Your task to perform on an android device: Open accessibility settings Image 0: 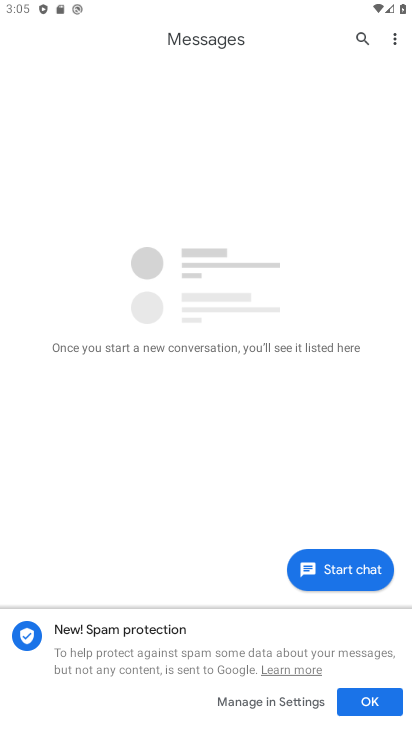
Step 0: press home button
Your task to perform on an android device: Open accessibility settings Image 1: 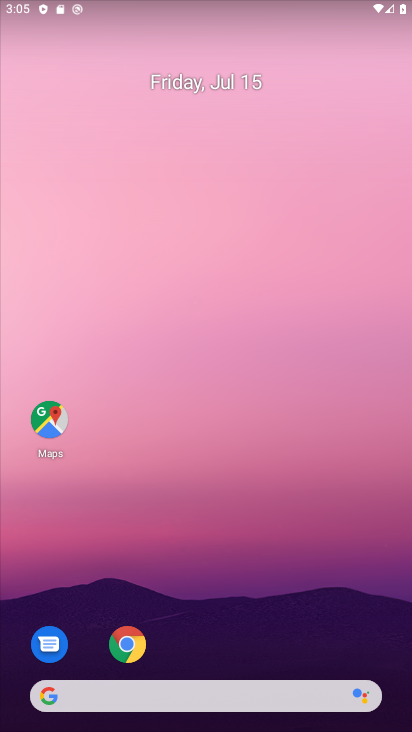
Step 1: drag from (265, 638) to (245, 122)
Your task to perform on an android device: Open accessibility settings Image 2: 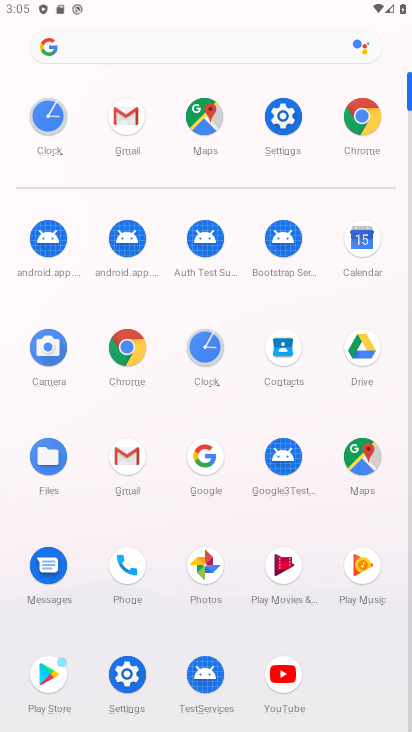
Step 2: click (282, 110)
Your task to perform on an android device: Open accessibility settings Image 3: 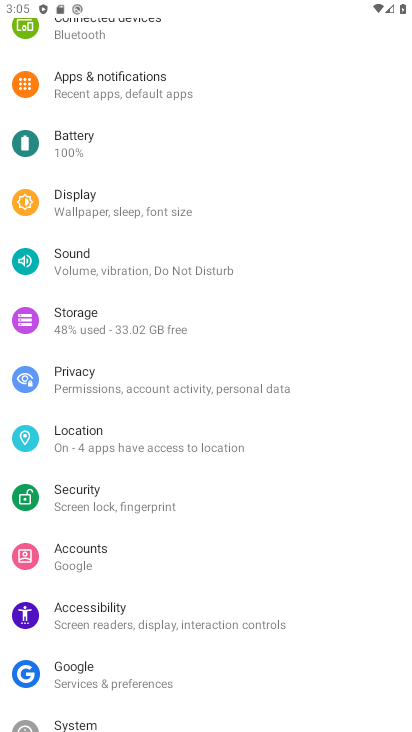
Step 3: click (133, 629)
Your task to perform on an android device: Open accessibility settings Image 4: 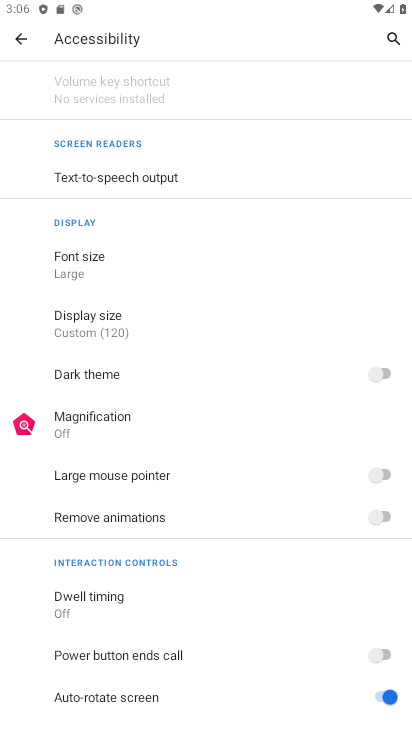
Step 4: task complete